Your task to perform on an android device: allow cookies in the chrome app Image 0: 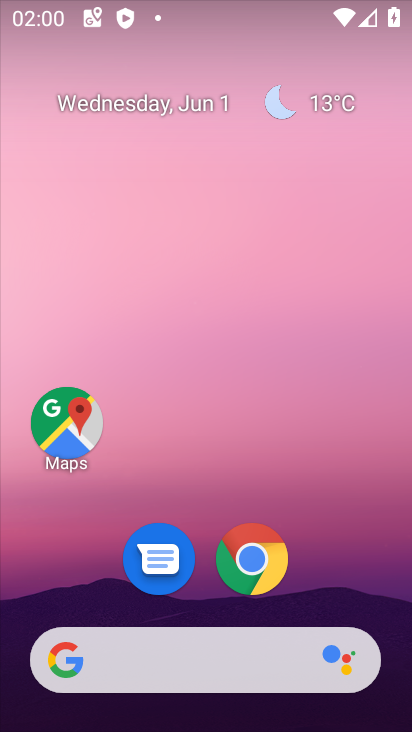
Step 0: click (259, 564)
Your task to perform on an android device: allow cookies in the chrome app Image 1: 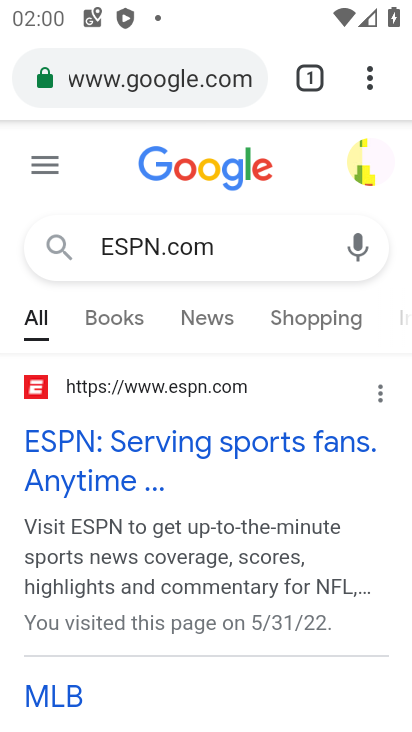
Step 1: click (368, 70)
Your task to perform on an android device: allow cookies in the chrome app Image 2: 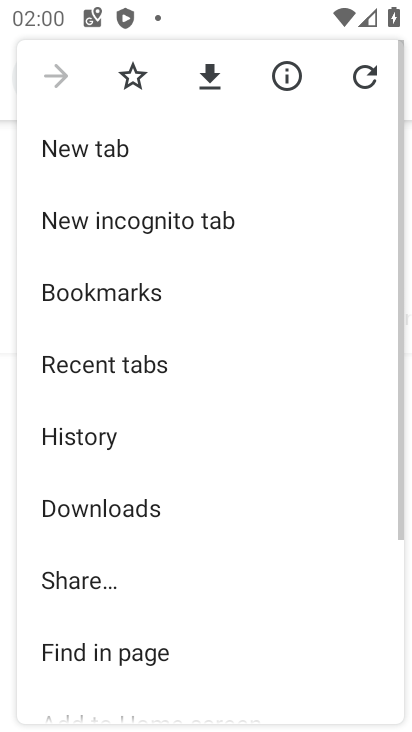
Step 2: drag from (271, 617) to (236, 264)
Your task to perform on an android device: allow cookies in the chrome app Image 3: 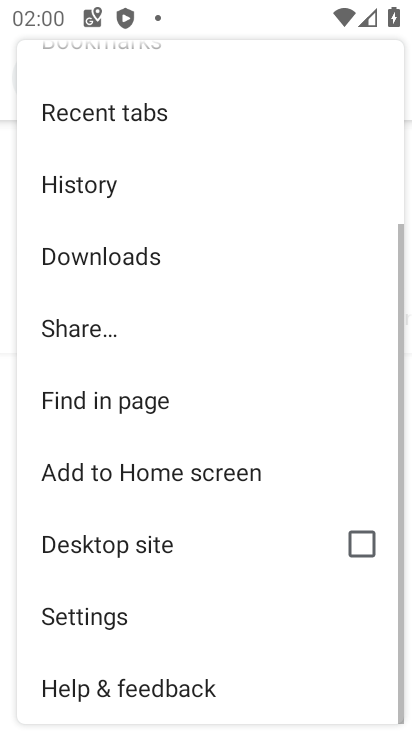
Step 3: click (73, 636)
Your task to perform on an android device: allow cookies in the chrome app Image 4: 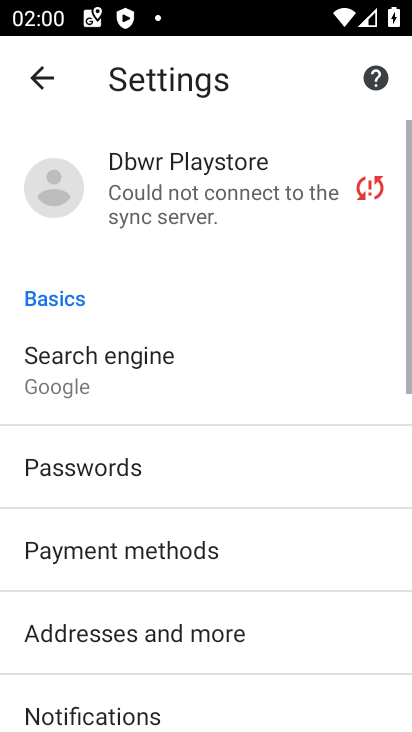
Step 4: drag from (215, 677) to (216, 221)
Your task to perform on an android device: allow cookies in the chrome app Image 5: 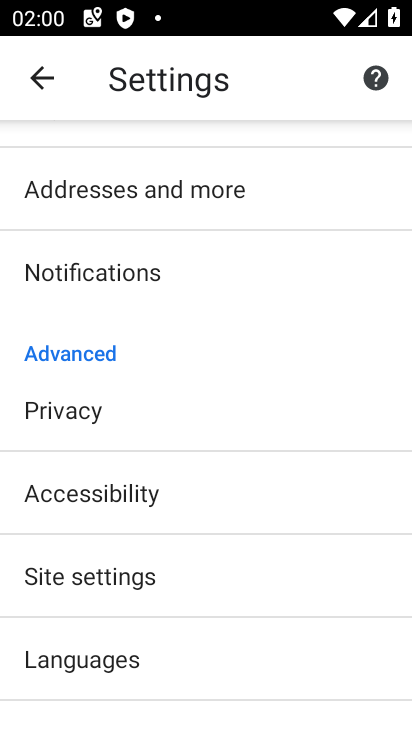
Step 5: click (79, 585)
Your task to perform on an android device: allow cookies in the chrome app Image 6: 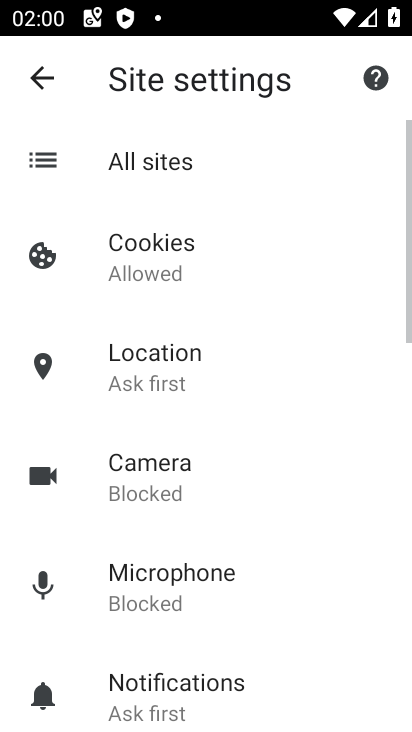
Step 6: drag from (272, 663) to (268, 234)
Your task to perform on an android device: allow cookies in the chrome app Image 7: 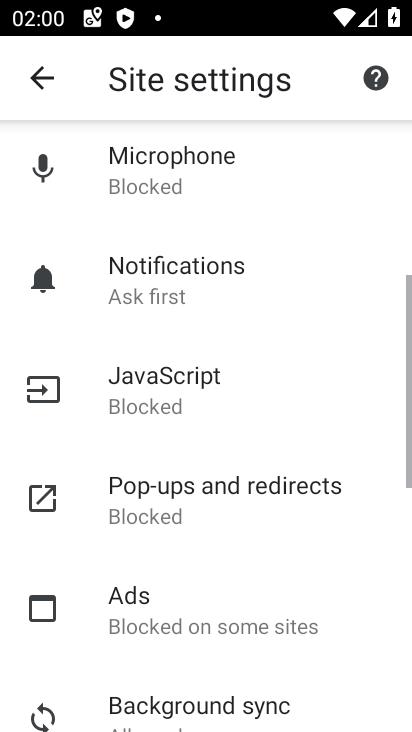
Step 7: drag from (258, 182) to (375, 731)
Your task to perform on an android device: allow cookies in the chrome app Image 8: 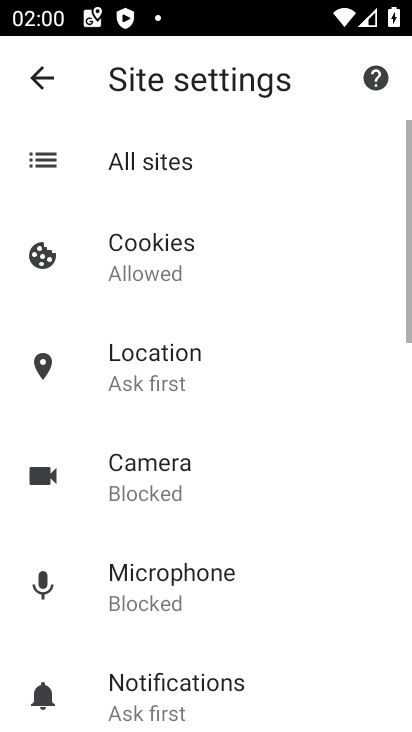
Step 8: click (132, 249)
Your task to perform on an android device: allow cookies in the chrome app Image 9: 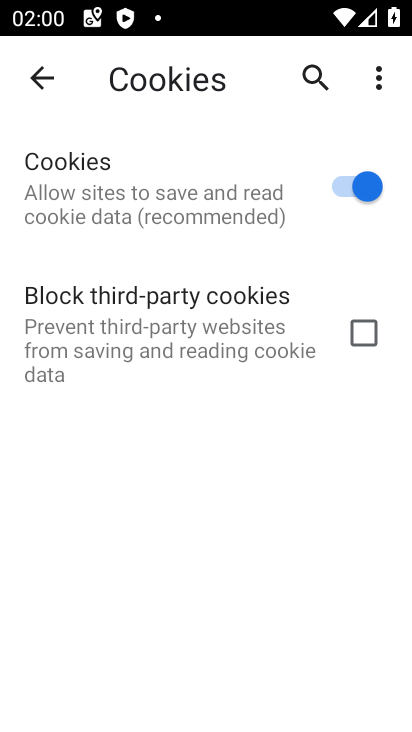
Step 9: task complete